Your task to perform on an android device: turn off sleep mode Image 0: 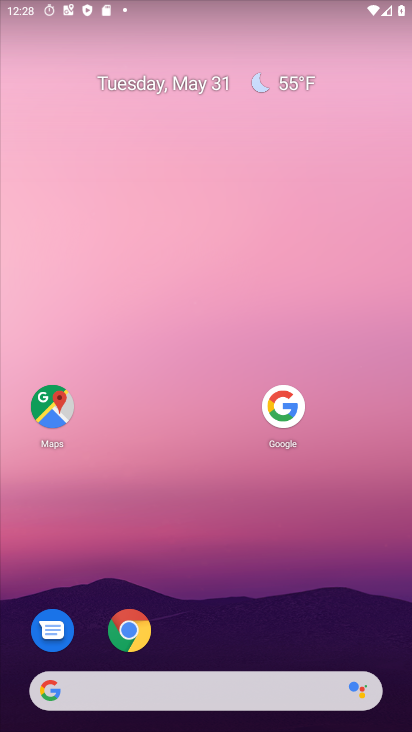
Step 0: drag from (201, 688) to (269, 181)
Your task to perform on an android device: turn off sleep mode Image 1: 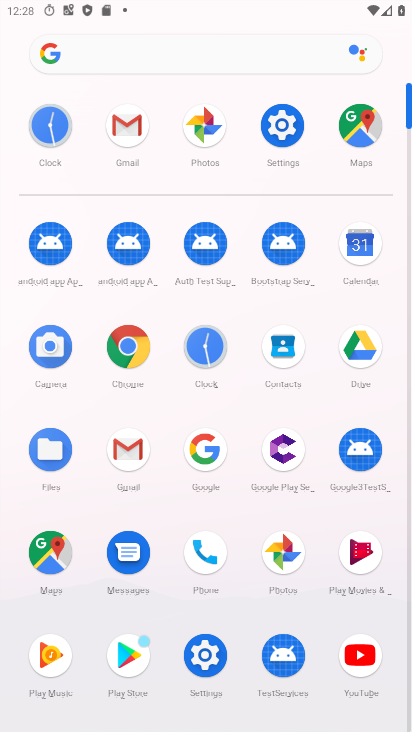
Step 1: click (289, 137)
Your task to perform on an android device: turn off sleep mode Image 2: 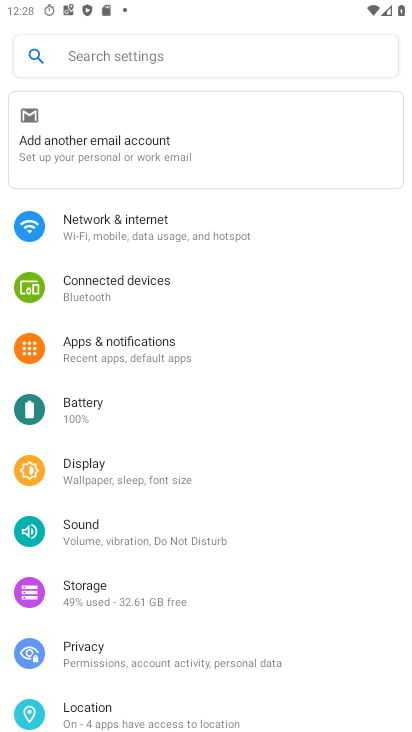
Step 2: click (149, 476)
Your task to perform on an android device: turn off sleep mode Image 3: 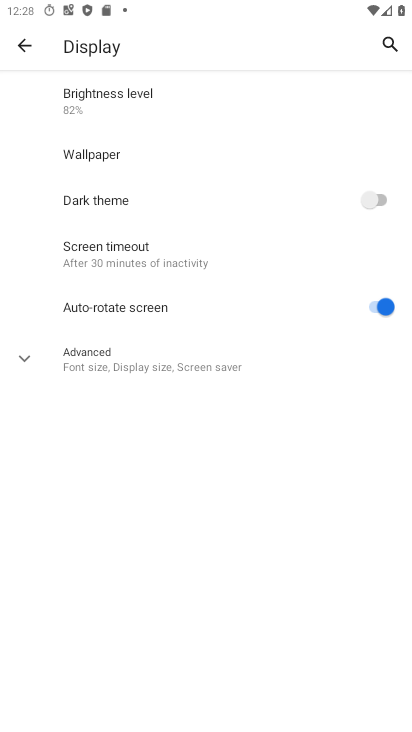
Step 3: task complete